Your task to perform on an android device: Open Google Chrome Image 0: 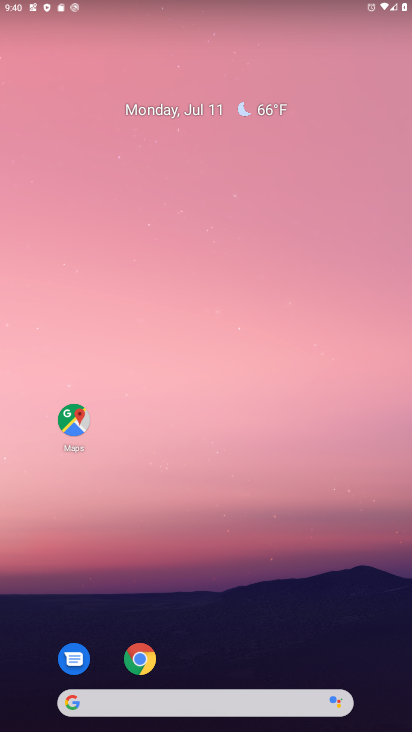
Step 0: drag from (345, 632) to (359, 226)
Your task to perform on an android device: Open Google Chrome Image 1: 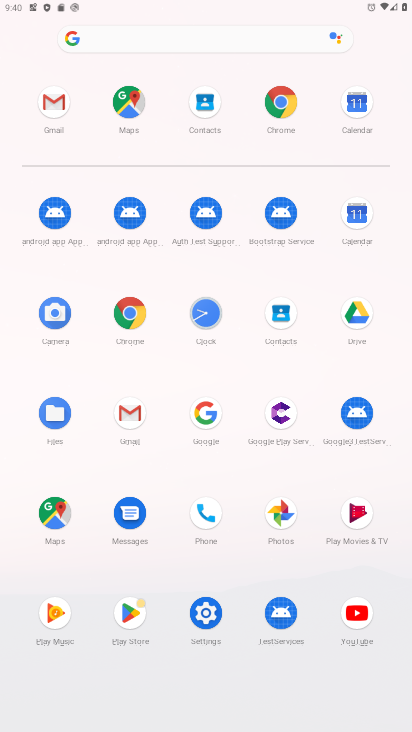
Step 1: click (136, 311)
Your task to perform on an android device: Open Google Chrome Image 2: 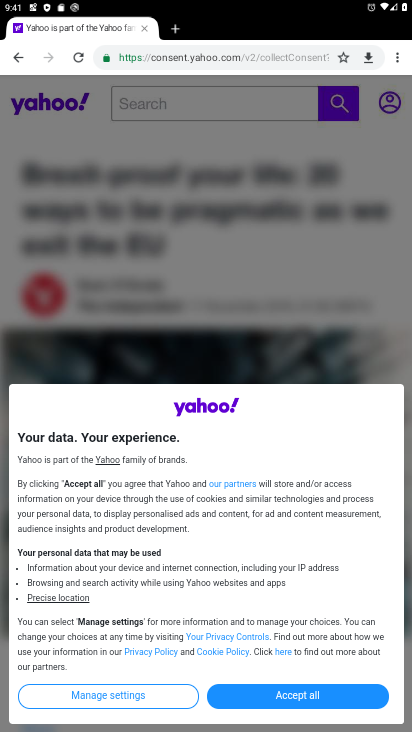
Step 2: task complete